Your task to perform on an android device: turn off priority inbox in the gmail app Image 0: 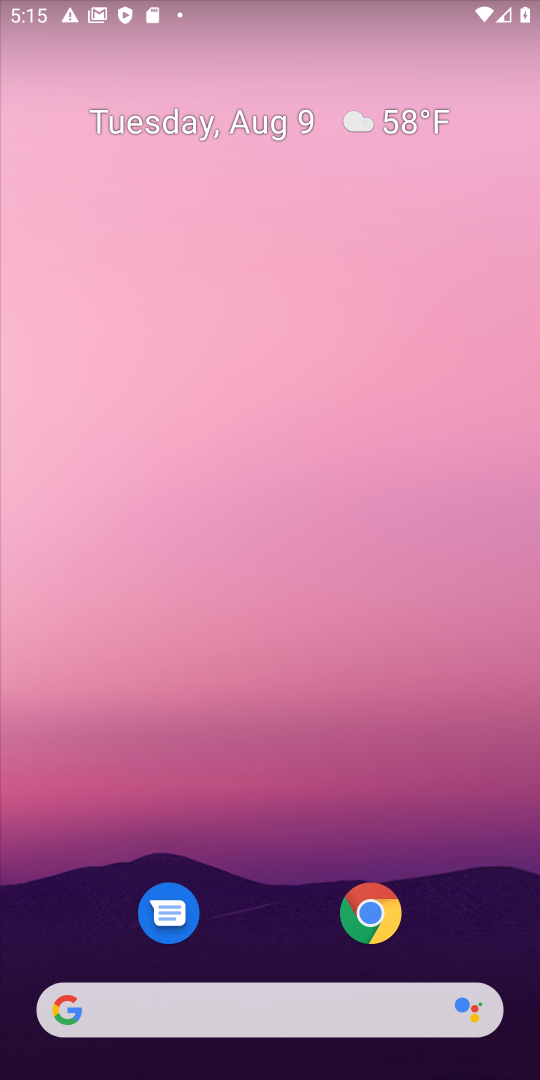
Step 0: drag from (265, 923) to (183, 105)
Your task to perform on an android device: turn off priority inbox in the gmail app Image 1: 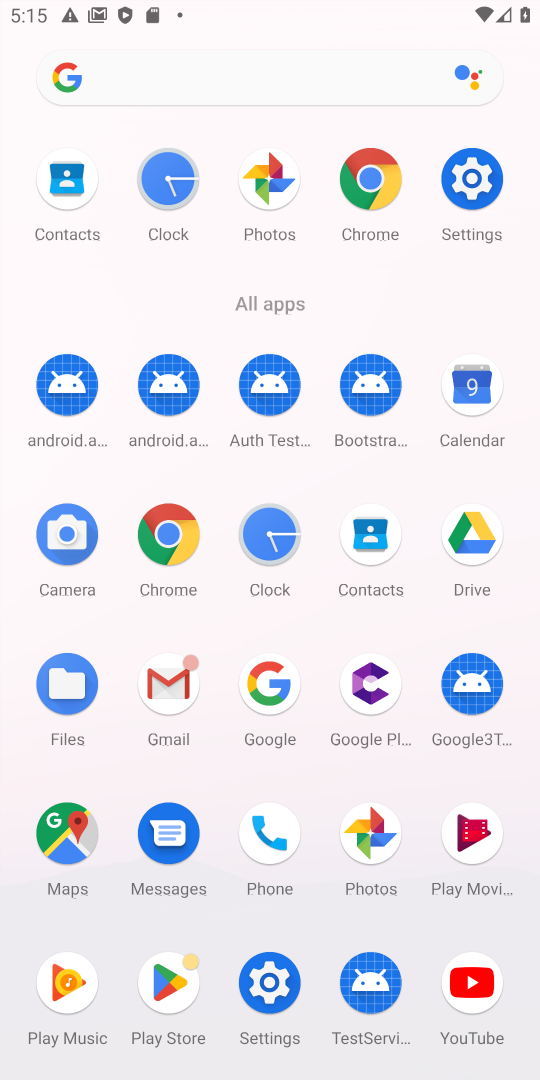
Step 1: click (185, 673)
Your task to perform on an android device: turn off priority inbox in the gmail app Image 2: 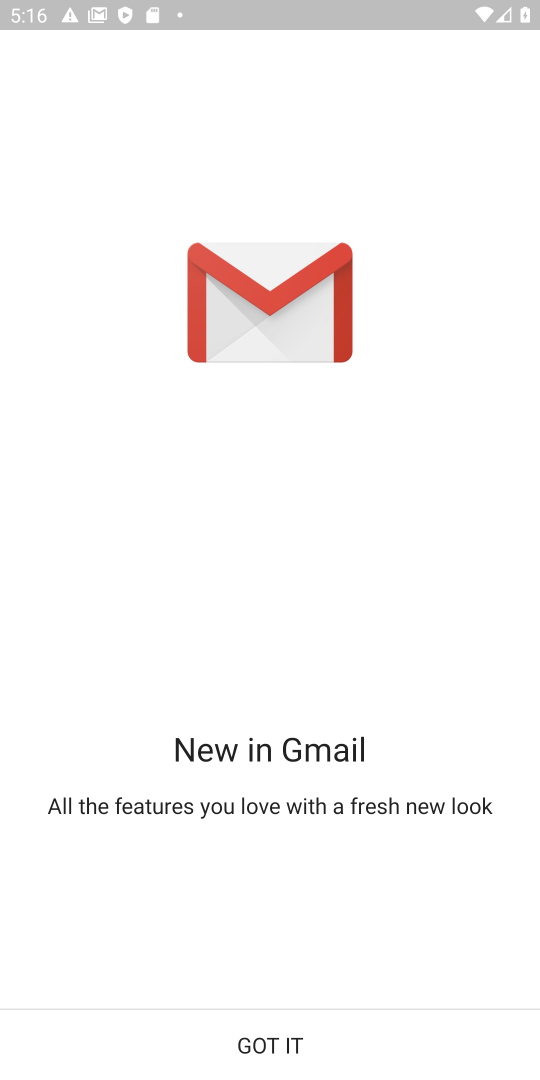
Step 2: click (225, 1023)
Your task to perform on an android device: turn off priority inbox in the gmail app Image 3: 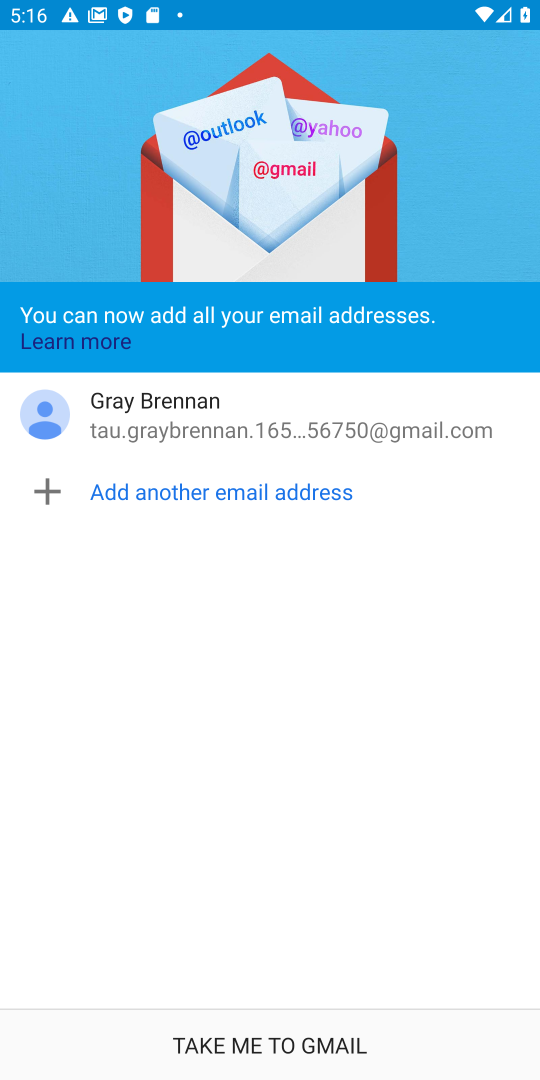
Step 3: click (313, 1047)
Your task to perform on an android device: turn off priority inbox in the gmail app Image 4: 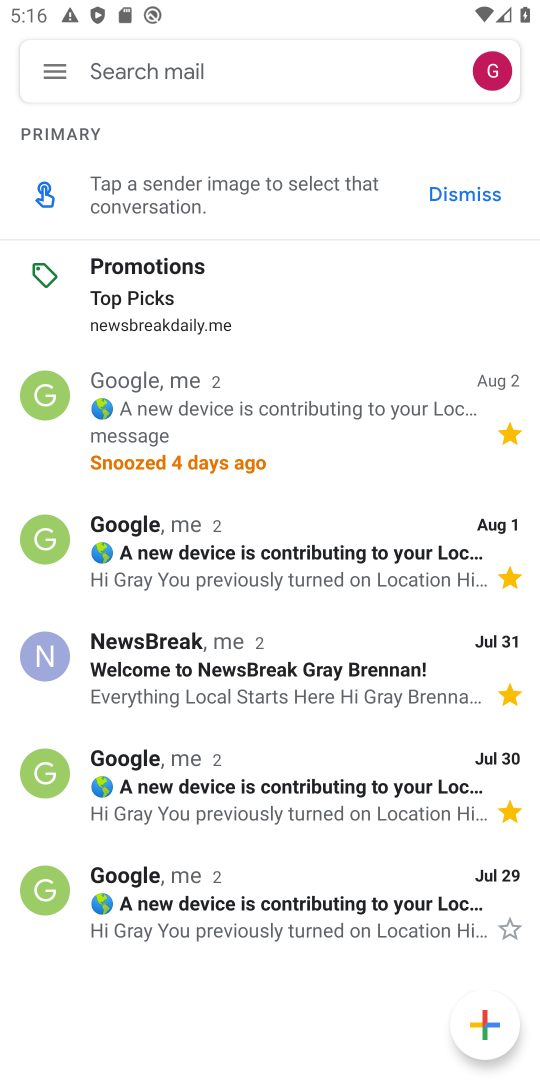
Step 4: click (46, 71)
Your task to perform on an android device: turn off priority inbox in the gmail app Image 5: 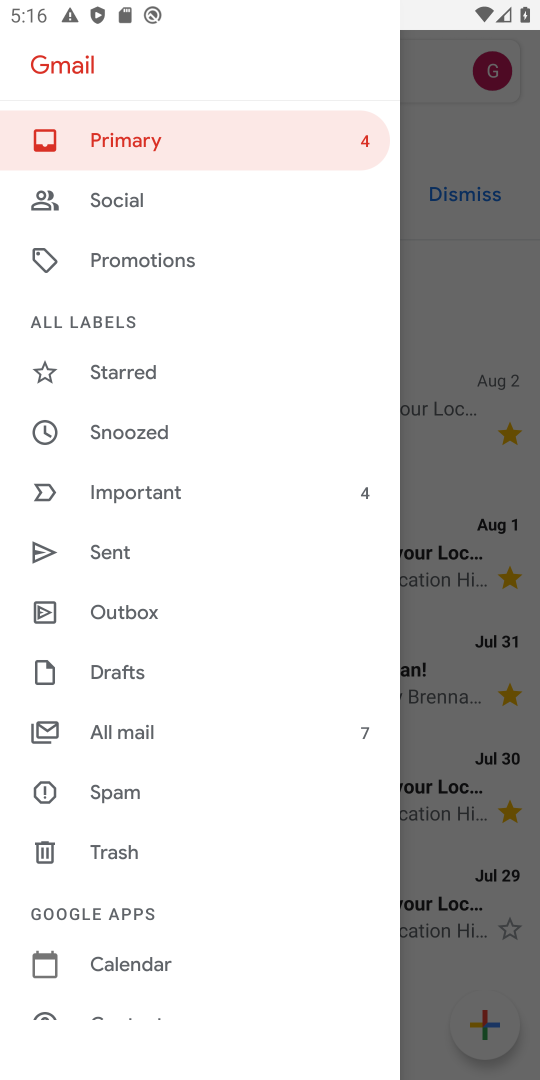
Step 5: drag from (134, 871) to (98, 305)
Your task to perform on an android device: turn off priority inbox in the gmail app Image 6: 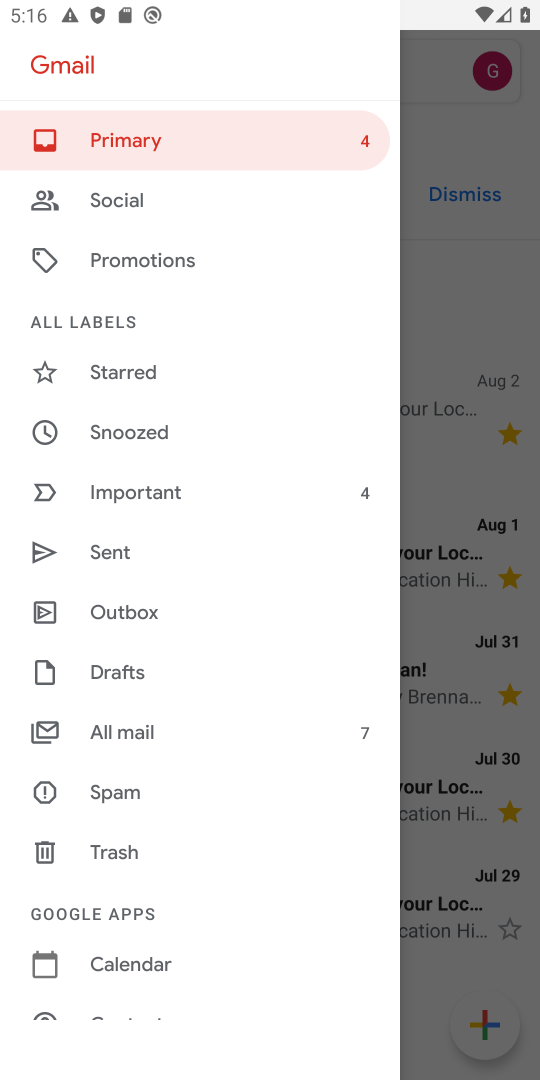
Step 6: drag from (97, 828) to (97, 68)
Your task to perform on an android device: turn off priority inbox in the gmail app Image 7: 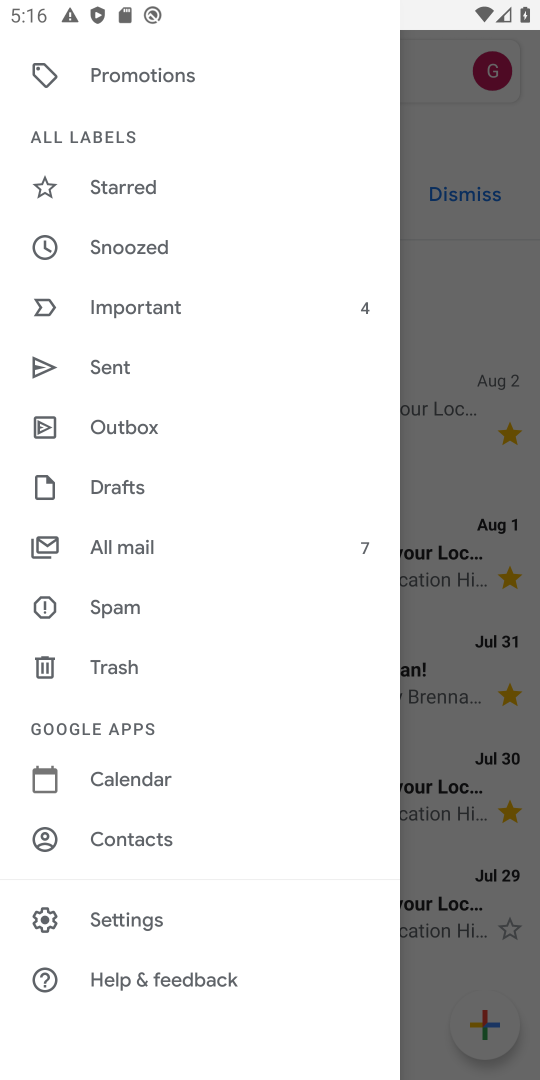
Step 7: click (107, 921)
Your task to perform on an android device: turn off priority inbox in the gmail app Image 8: 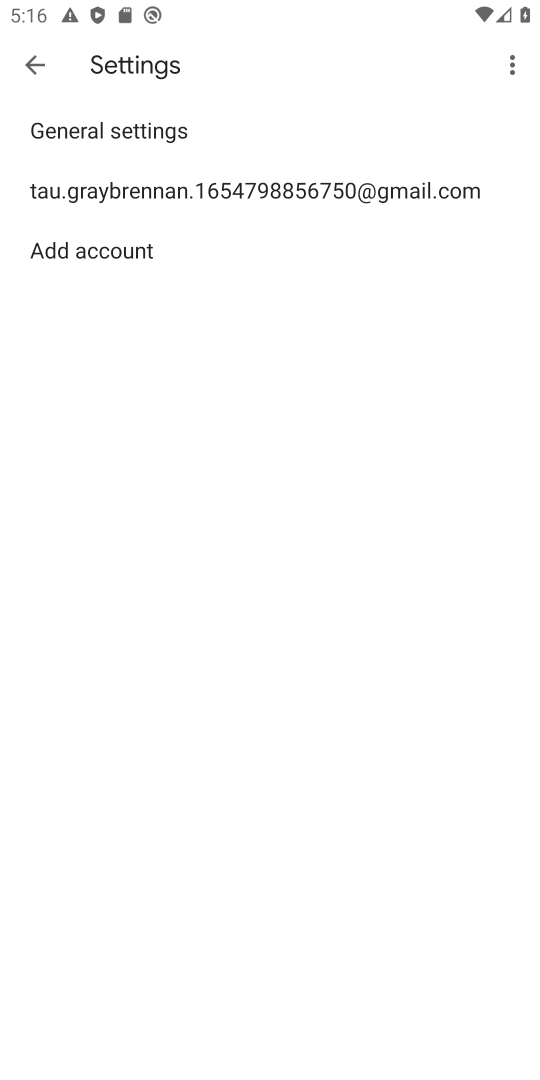
Step 8: click (302, 180)
Your task to perform on an android device: turn off priority inbox in the gmail app Image 9: 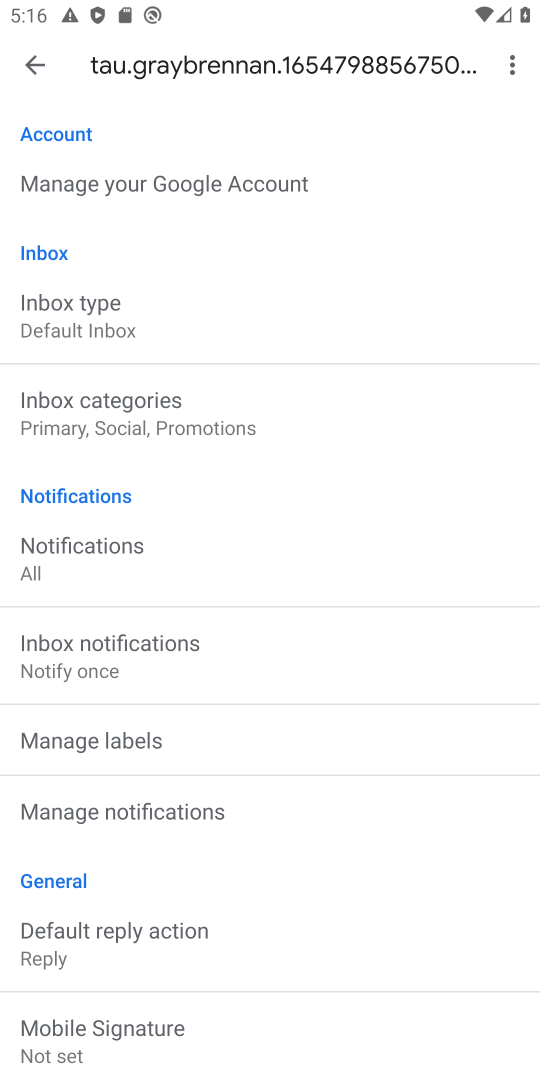
Step 9: click (121, 309)
Your task to perform on an android device: turn off priority inbox in the gmail app Image 10: 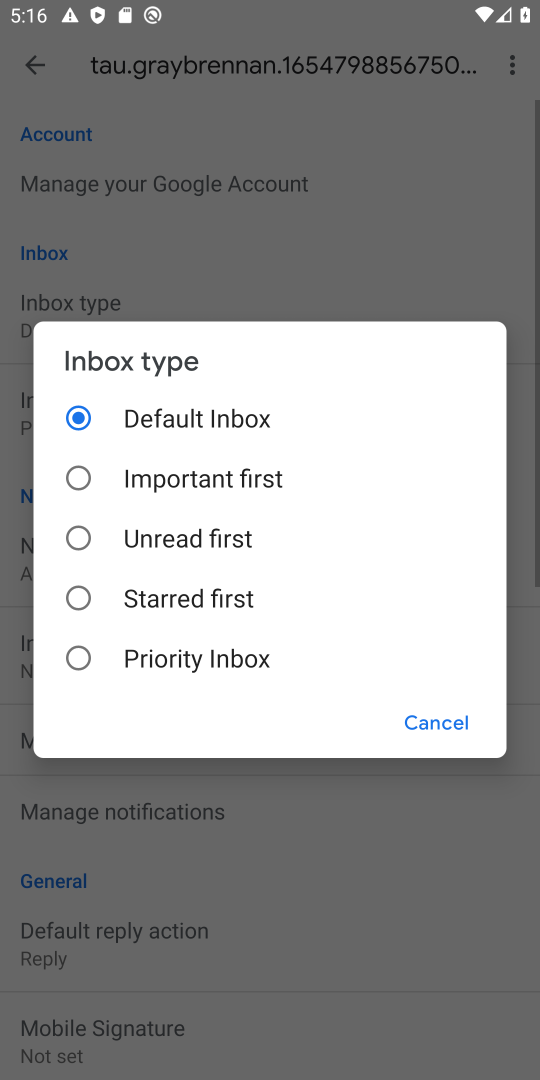
Step 10: click (165, 401)
Your task to perform on an android device: turn off priority inbox in the gmail app Image 11: 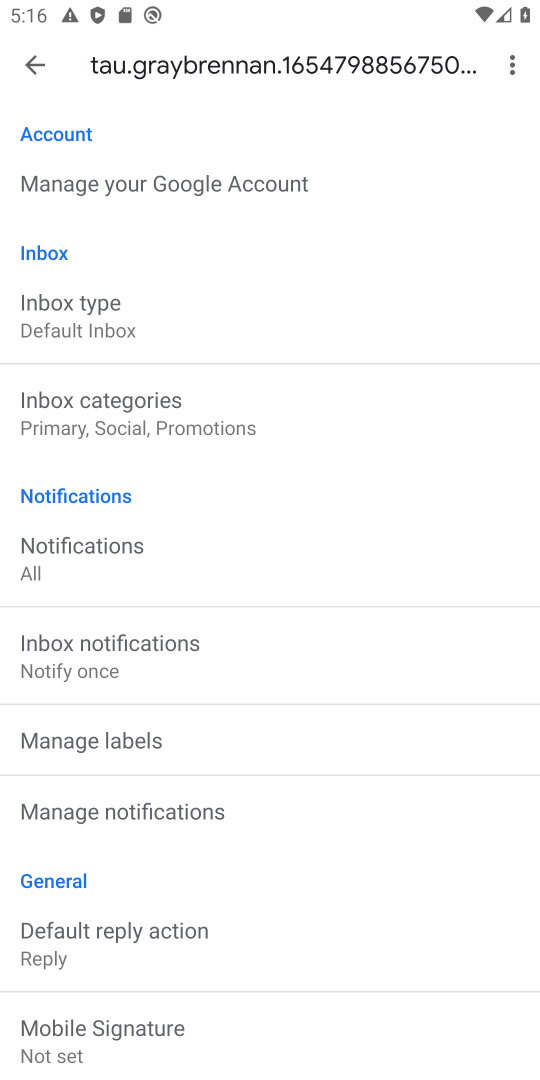
Step 11: task complete